Your task to perform on an android device: toggle location history Image 0: 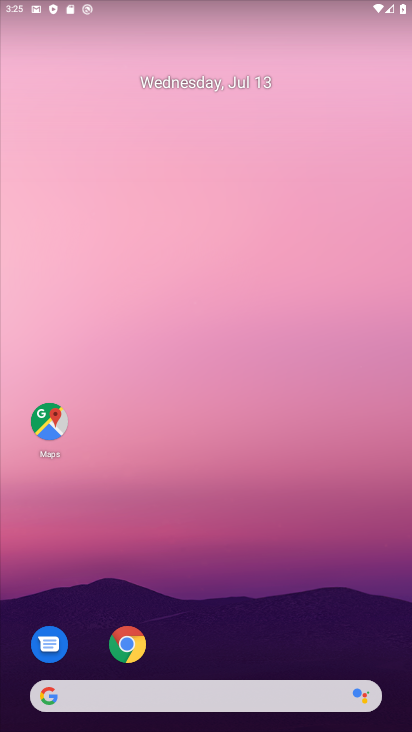
Step 0: drag from (281, 621) to (275, 90)
Your task to perform on an android device: toggle location history Image 1: 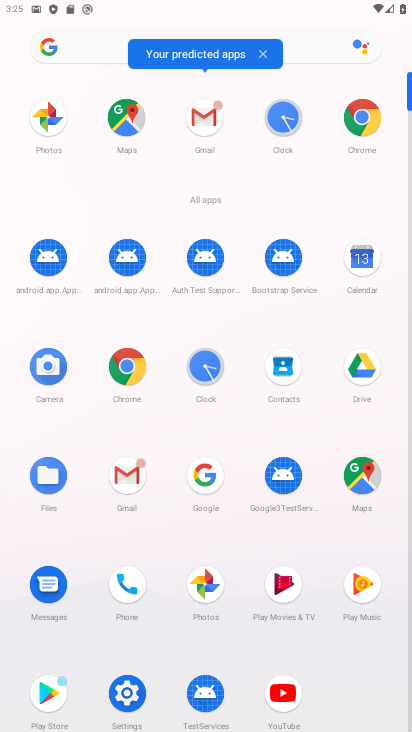
Step 1: click (137, 117)
Your task to perform on an android device: toggle location history Image 2: 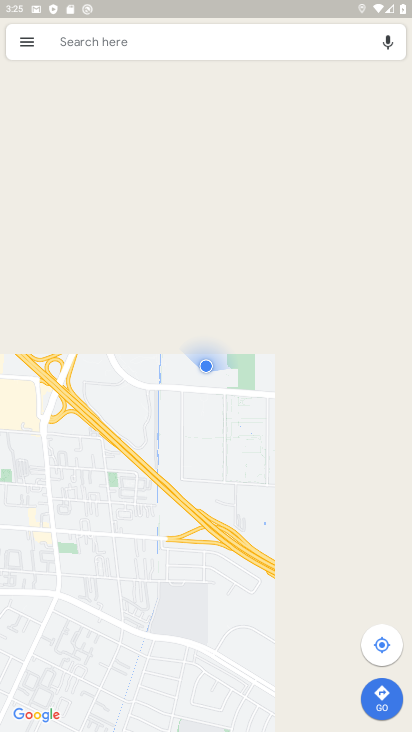
Step 2: click (24, 41)
Your task to perform on an android device: toggle location history Image 3: 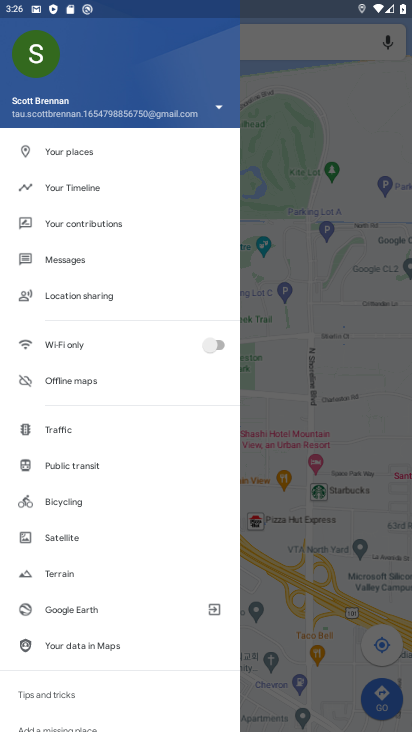
Step 3: click (84, 184)
Your task to perform on an android device: toggle location history Image 4: 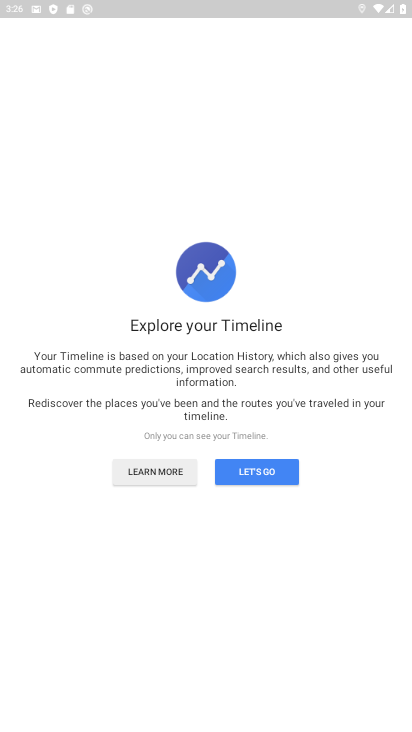
Step 4: click (272, 471)
Your task to perform on an android device: toggle location history Image 5: 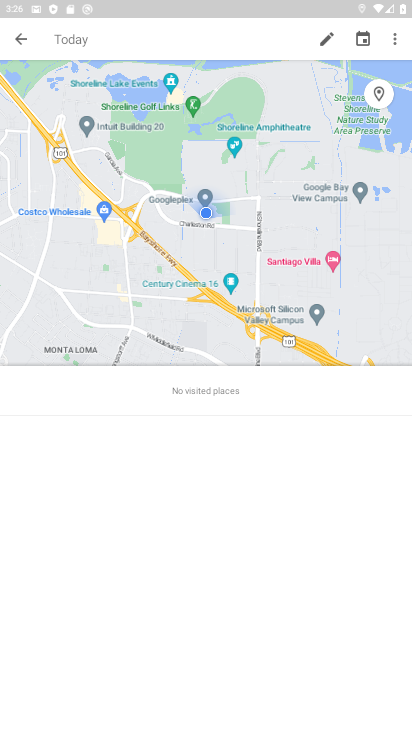
Step 5: click (396, 33)
Your task to perform on an android device: toggle location history Image 6: 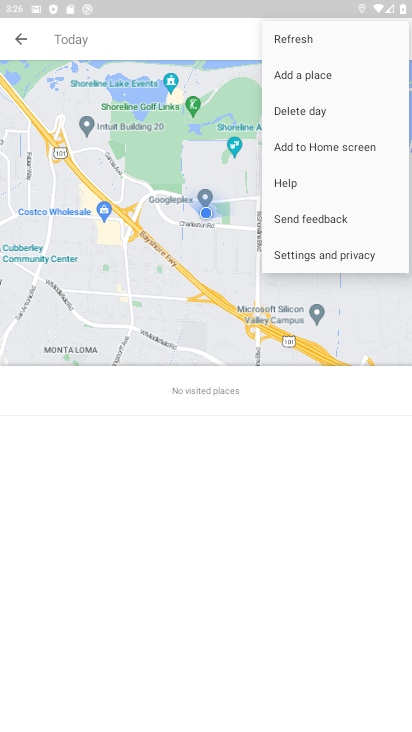
Step 6: click (342, 254)
Your task to perform on an android device: toggle location history Image 7: 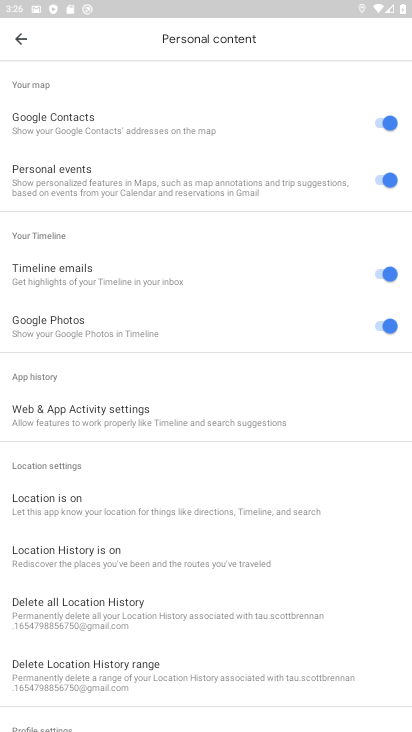
Step 7: click (161, 557)
Your task to perform on an android device: toggle location history Image 8: 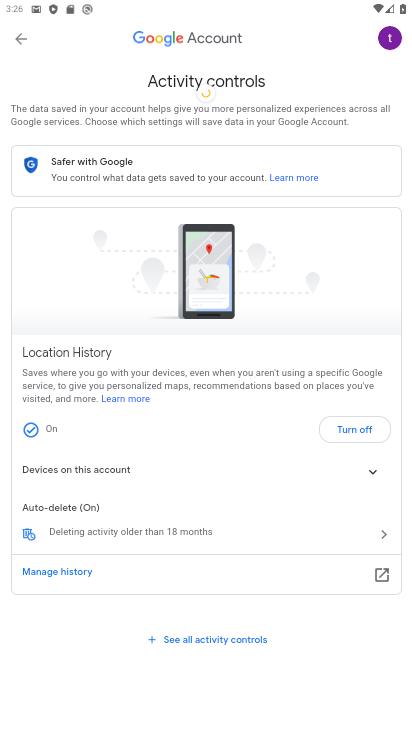
Step 8: click (350, 434)
Your task to perform on an android device: toggle location history Image 9: 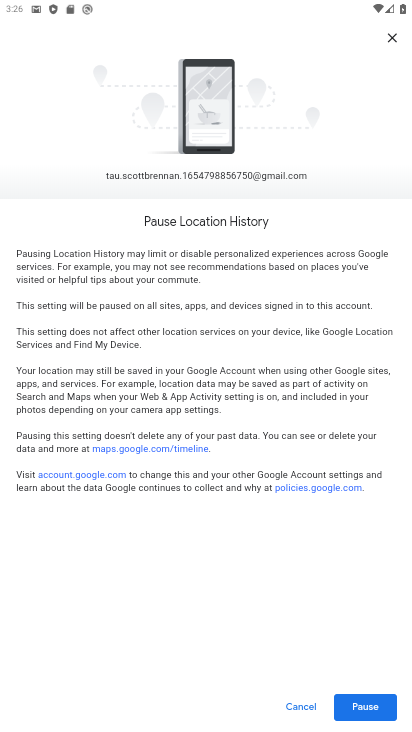
Step 9: click (375, 709)
Your task to perform on an android device: toggle location history Image 10: 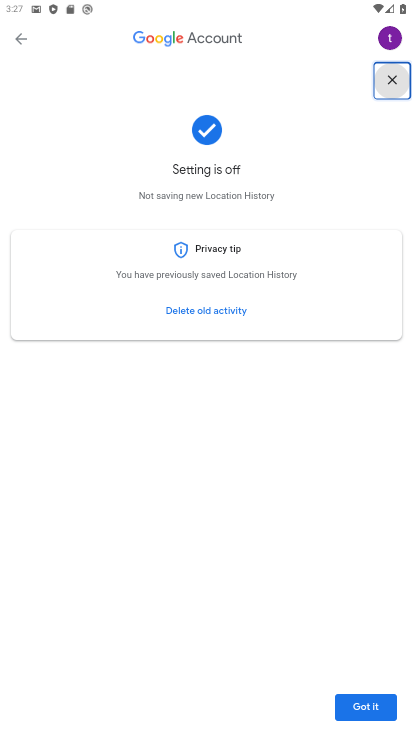
Step 10: click (381, 713)
Your task to perform on an android device: toggle location history Image 11: 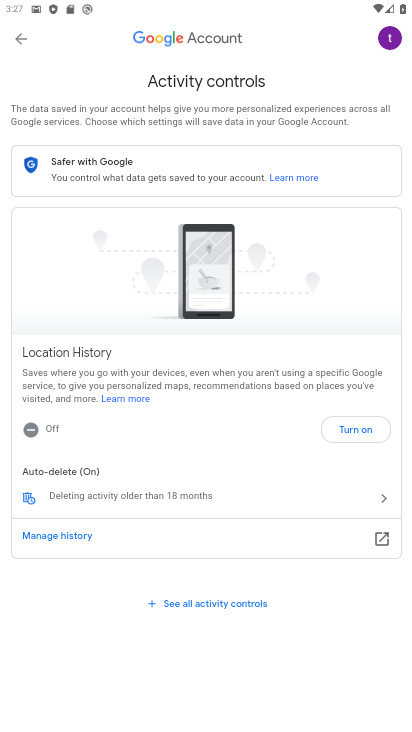
Step 11: task complete